Your task to perform on an android device: clear history in the chrome app Image 0: 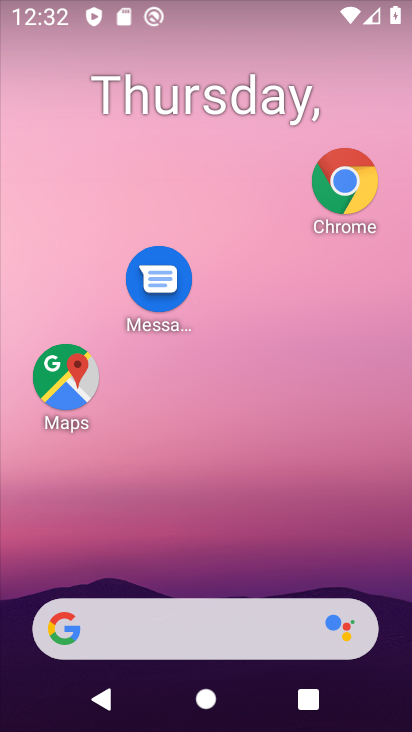
Step 0: click (322, 199)
Your task to perform on an android device: clear history in the chrome app Image 1: 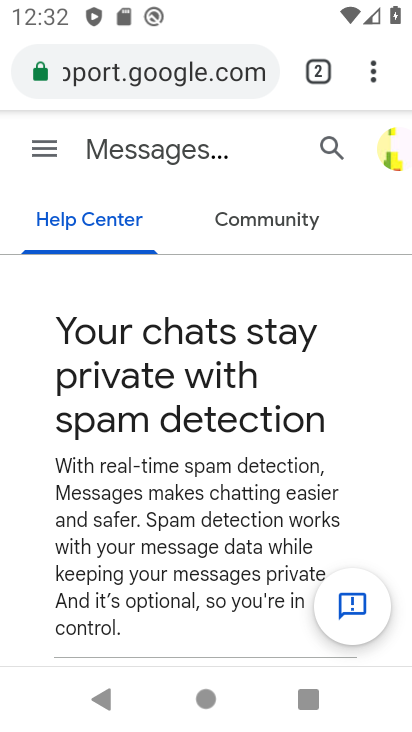
Step 1: click (408, 71)
Your task to perform on an android device: clear history in the chrome app Image 2: 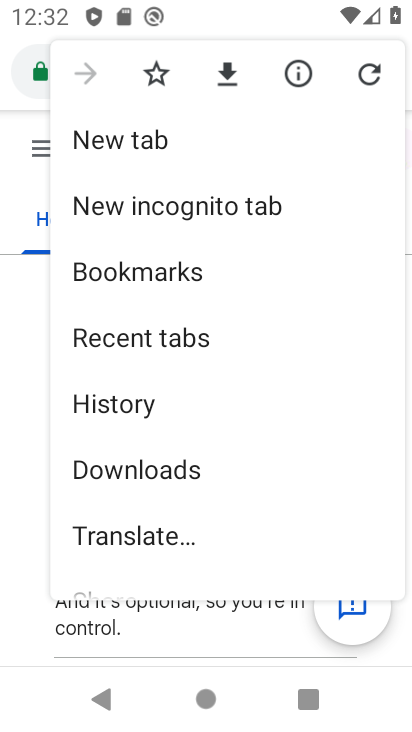
Step 2: click (169, 393)
Your task to perform on an android device: clear history in the chrome app Image 3: 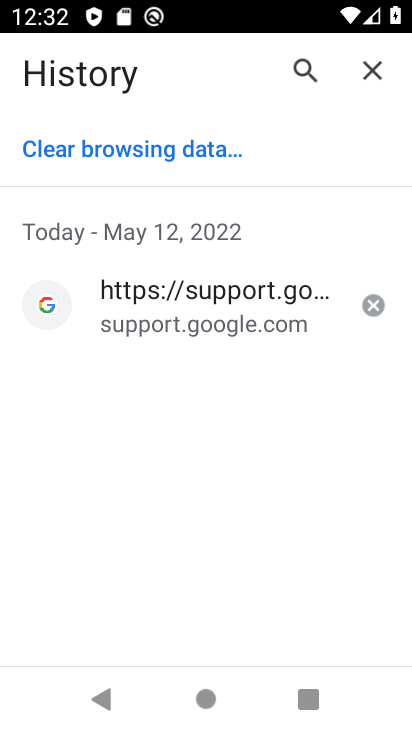
Step 3: click (114, 157)
Your task to perform on an android device: clear history in the chrome app Image 4: 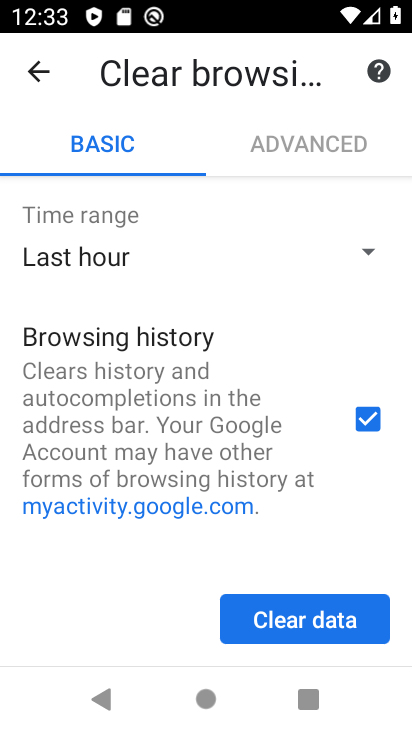
Step 4: click (280, 615)
Your task to perform on an android device: clear history in the chrome app Image 5: 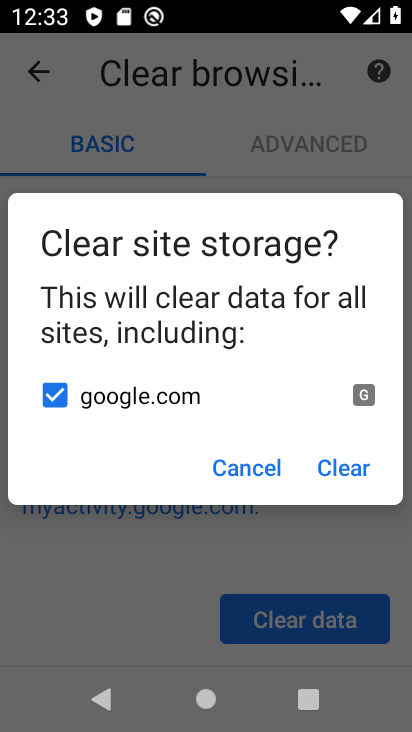
Step 5: click (355, 470)
Your task to perform on an android device: clear history in the chrome app Image 6: 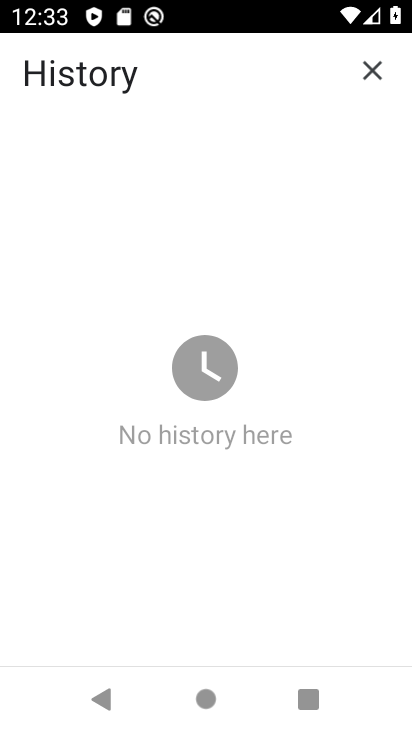
Step 6: task complete